Your task to perform on an android device: turn off notifications settings in the gmail app Image 0: 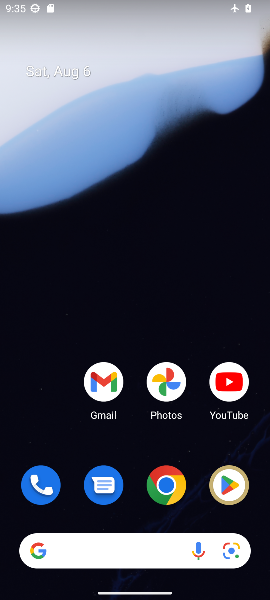
Step 0: drag from (123, 447) to (230, 434)
Your task to perform on an android device: turn off notifications settings in the gmail app Image 1: 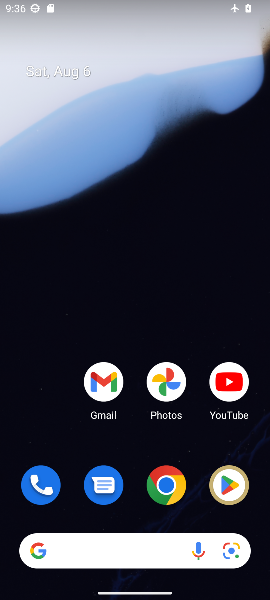
Step 1: drag from (198, 443) to (196, 64)
Your task to perform on an android device: turn off notifications settings in the gmail app Image 2: 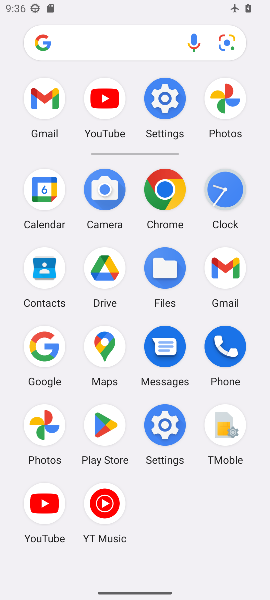
Step 2: click (223, 266)
Your task to perform on an android device: turn off notifications settings in the gmail app Image 3: 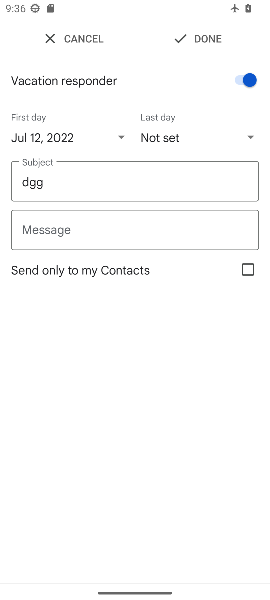
Step 3: click (54, 42)
Your task to perform on an android device: turn off notifications settings in the gmail app Image 4: 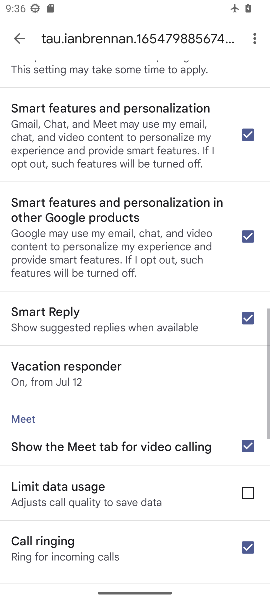
Step 4: click (25, 39)
Your task to perform on an android device: turn off notifications settings in the gmail app Image 5: 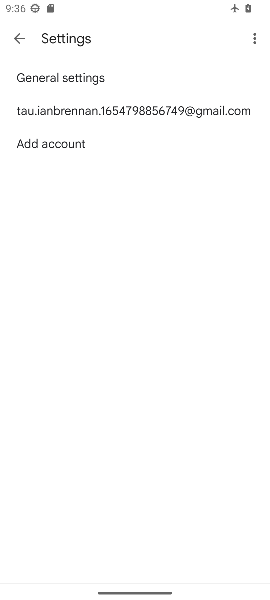
Step 5: click (25, 39)
Your task to perform on an android device: turn off notifications settings in the gmail app Image 6: 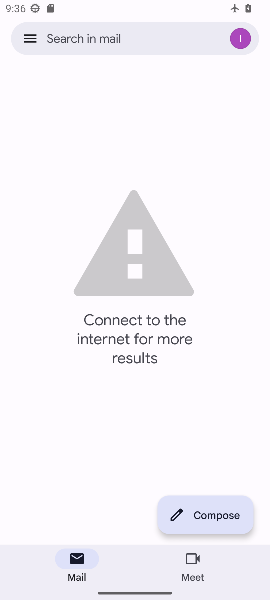
Step 6: click (25, 39)
Your task to perform on an android device: turn off notifications settings in the gmail app Image 7: 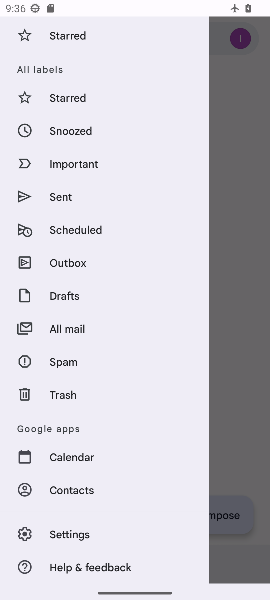
Step 7: click (41, 534)
Your task to perform on an android device: turn off notifications settings in the gmail app Image 8: 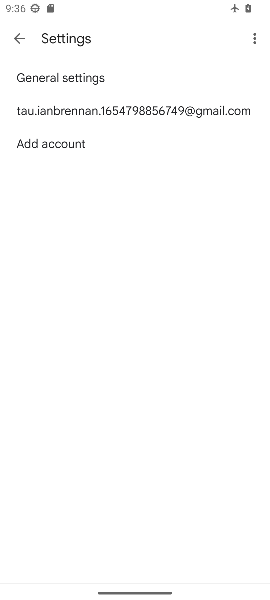
Step 8: click (141, 105)
Your task to perform on an android device: turn off notifications settings in the gmail app Image 9: 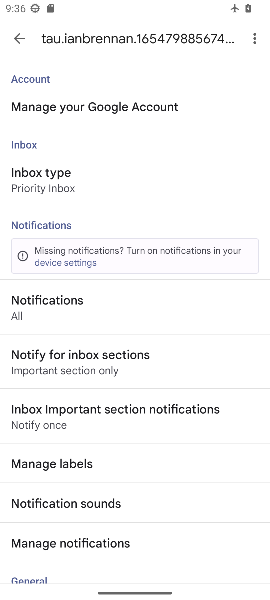
Step 9: click (96, 546)
Your task to perform on an android device: turn off notifications settings in the gmail app Image 10: 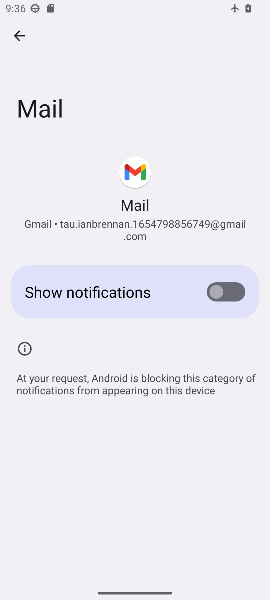
Step 10: task complete